Your task to perform on an android device: Search for "asus rog" on newegg.com, select the first entry, add it to the cart, then select checkout. Image 0: 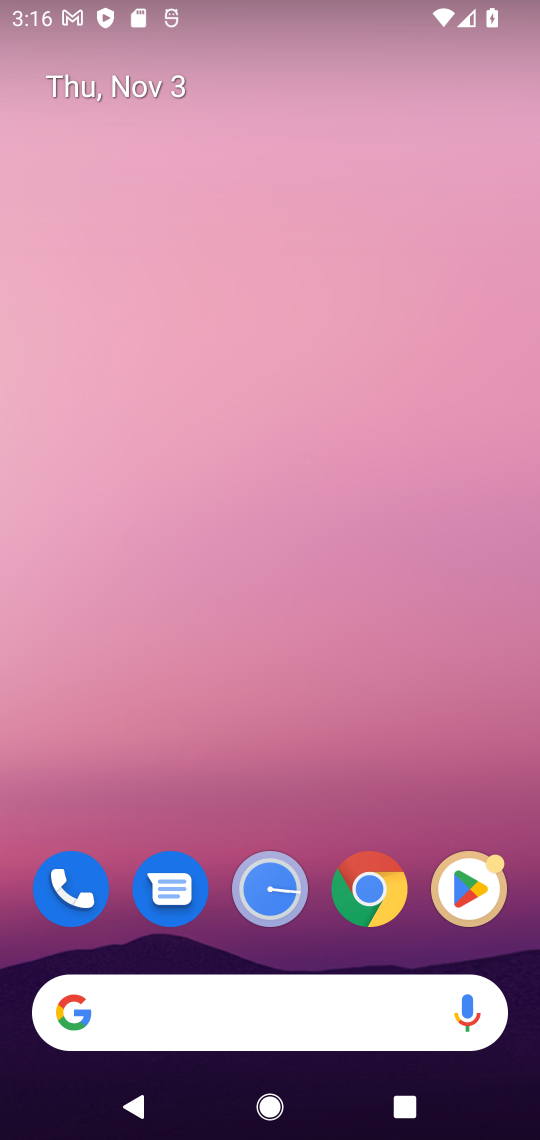
Step 0: click (73, 1016)
Your task to perform on an android device: Search for "asus rog" on newegg.com, select the first entry, add it to the cart, then select checkout. Image 1: 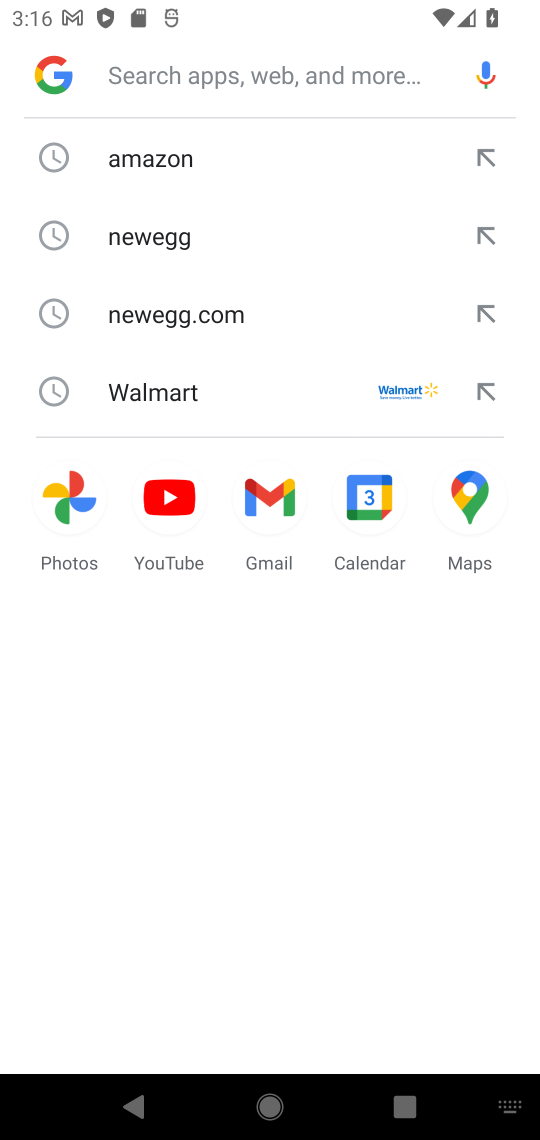
Step 1: click (205, 317)
Your task to perform on an android device: Search for "asus rog" on newegg.com, select the first entry, add it to the cart, then select checkout. Image 2: 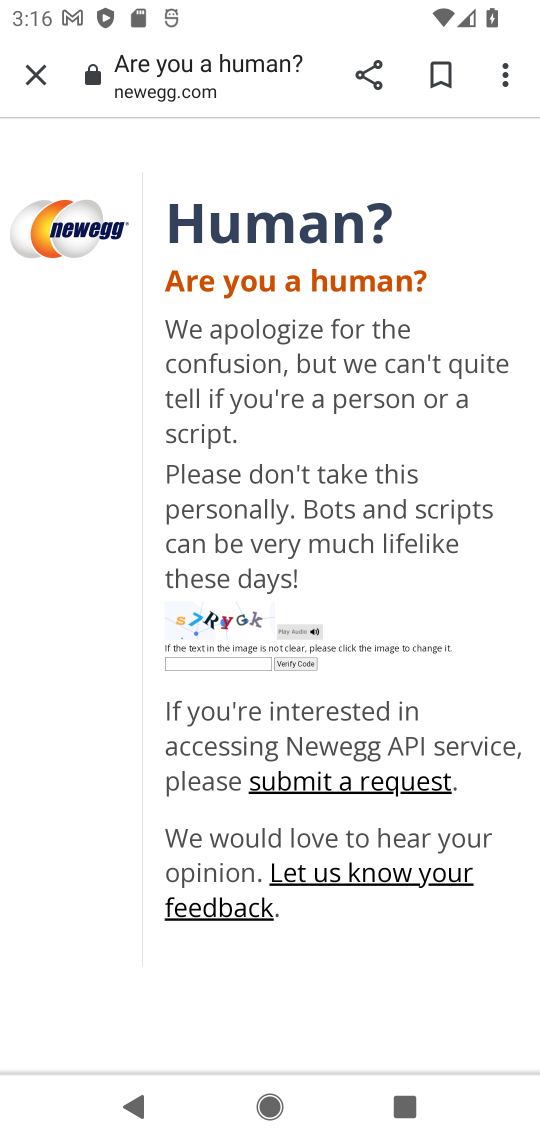
Step 2: task complete